Your task to perform on an android device: change timer sound Image 0: 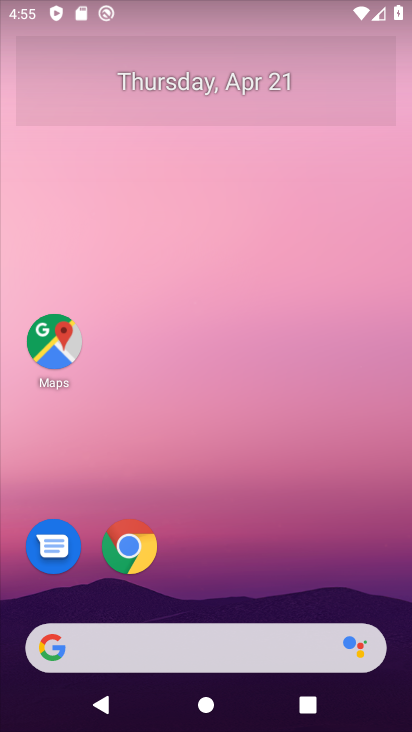
Step 0: drag from (232, 468) to (232, 202)
Your task to perform on an android device: change timer sound Image 1: 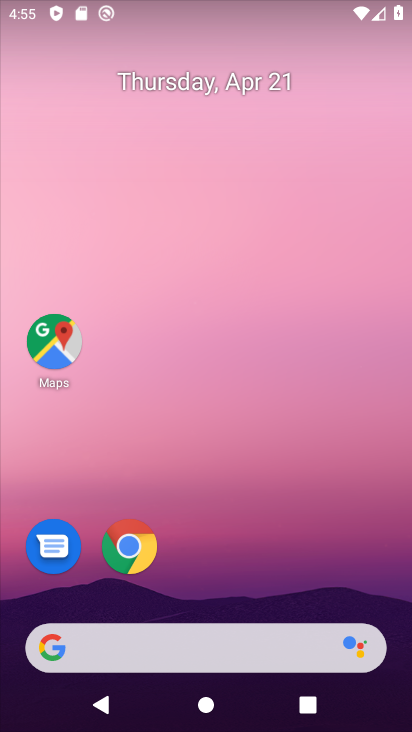
Step 1: drag from (253, 420) to (239, 110)
Your task to perform on an android device: change timer sound Image 2: 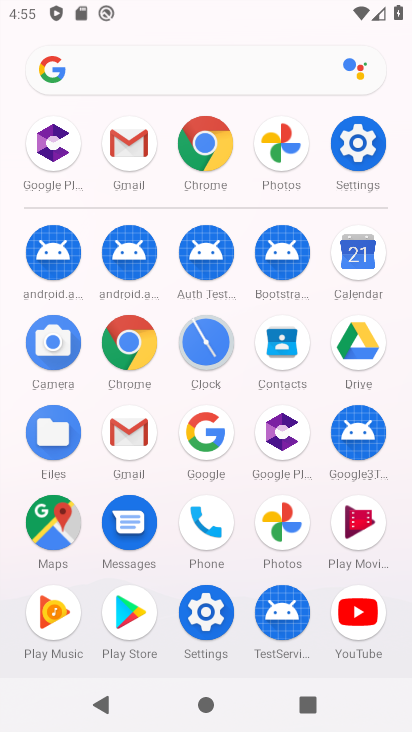
Step 2: click (209, 339)
Your task to perform on an android device: change timer sound Image 3: 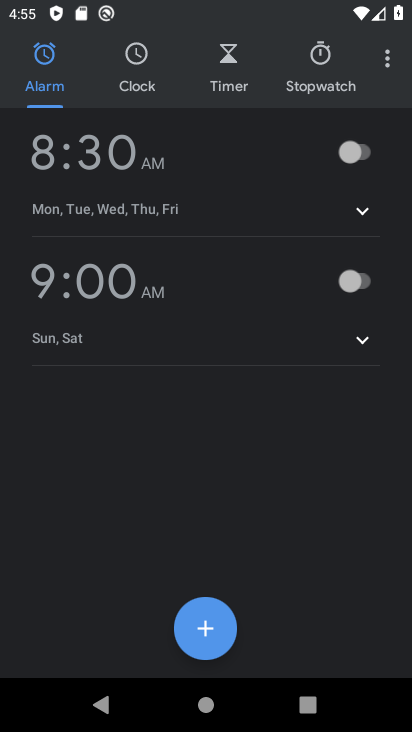
Step 3: click (390, 55)
Your task to perform on an android device: change timer sound Image 4: 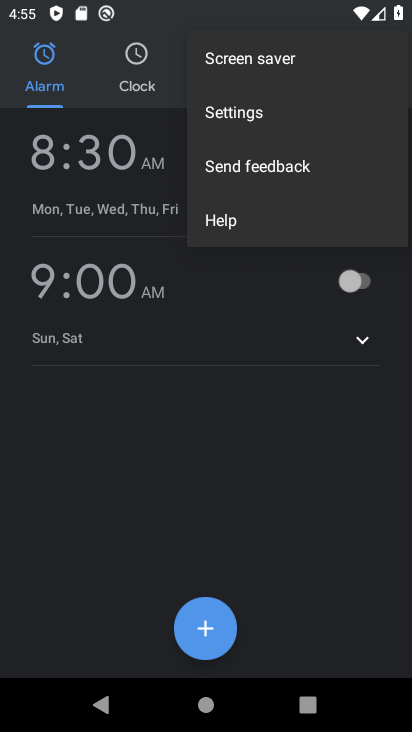
Step 4: click (297, 115)
Your task to perform on an android device: change timer sound Image 5: 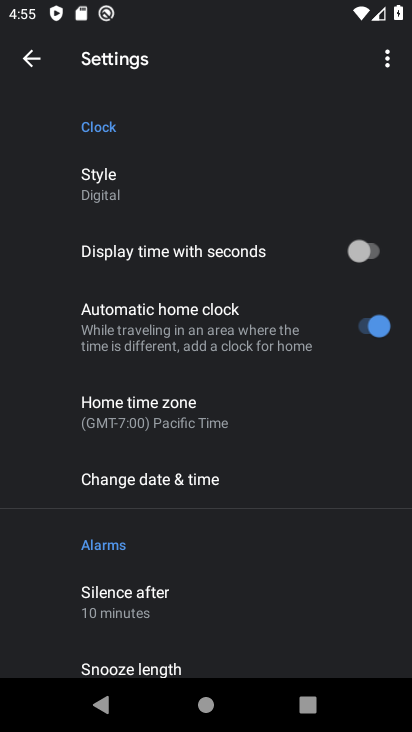
Step 5: drag from (270, 606) to (248, 210)
Your task to perform on an android device: change timer sound Image 6: 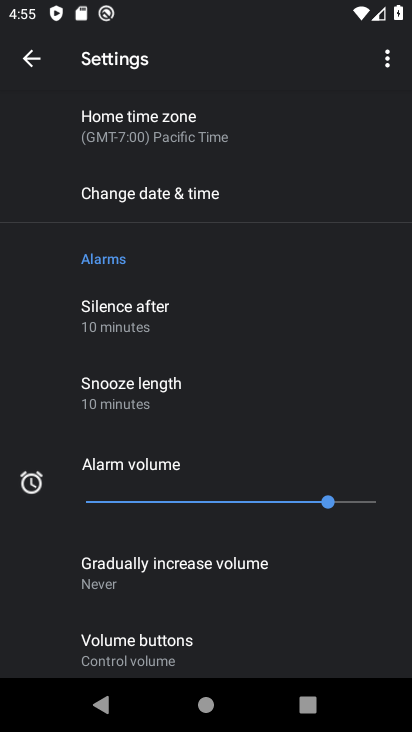
Step 6: drag from (228, 556) to (221, 151)
Your task to perform on an android device: change timer sound Image 7: 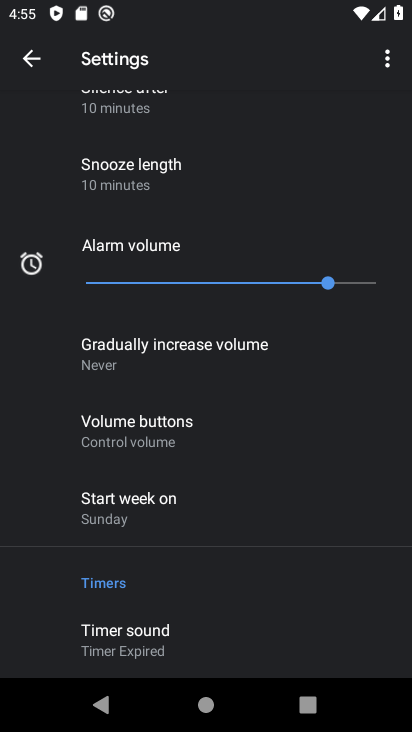
Step 7: click (125, 642)
Your task to perform on an android device: change timer sound Image 8: 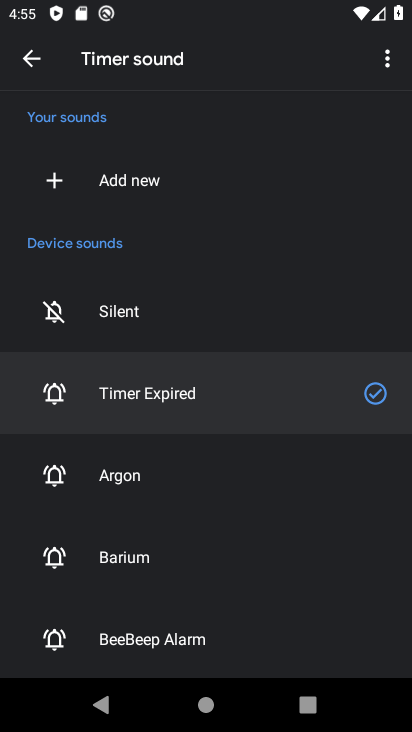
Step 8: click (134, 483)
Your task to perform on an android device: change timer sound Image 9: 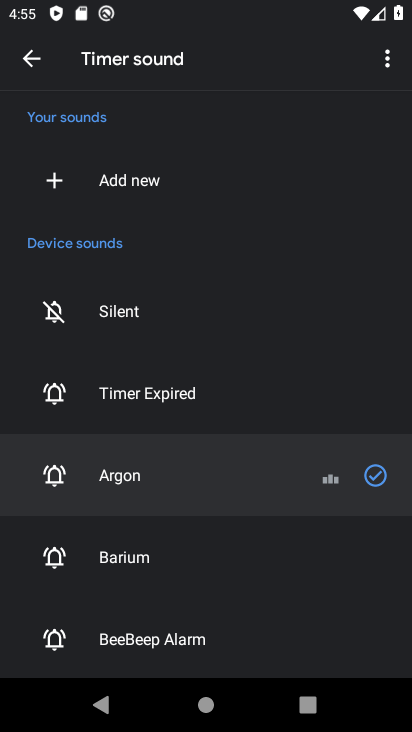
Step 9: task complete